Your task to perform on an android device: Open the web browser Image 0: 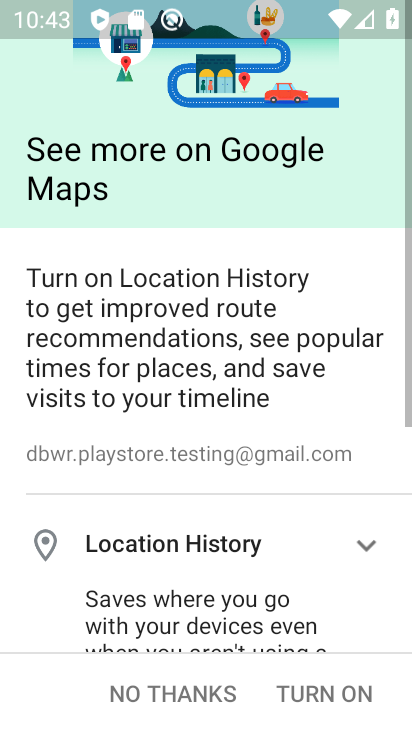
Step 0: press home button
Your task to perform on an android device: Open the web browser Image 1: 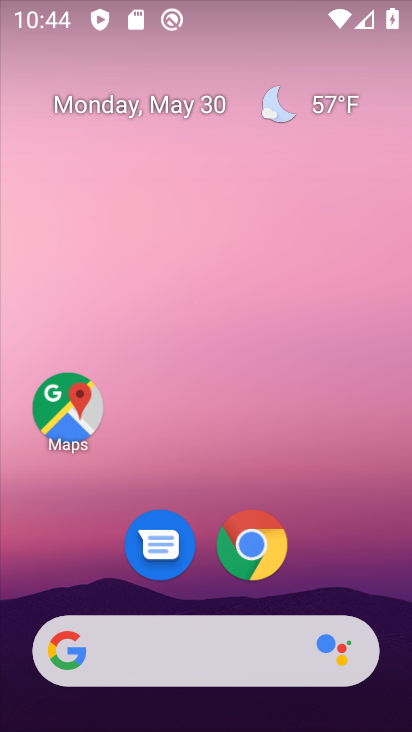
Step 1: drag from (216, 690) to (301, 98)
Your task to perform on an android device: Open the web browser Image 2: 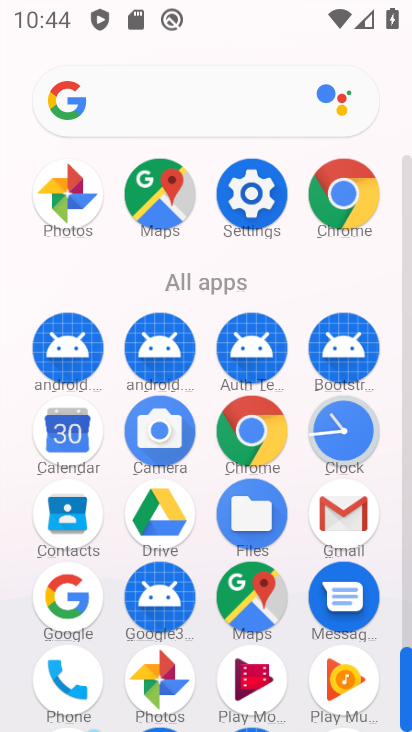
Step 2: click (359, 202)
Your task to perform on an android device: Open the web browser Image 3: 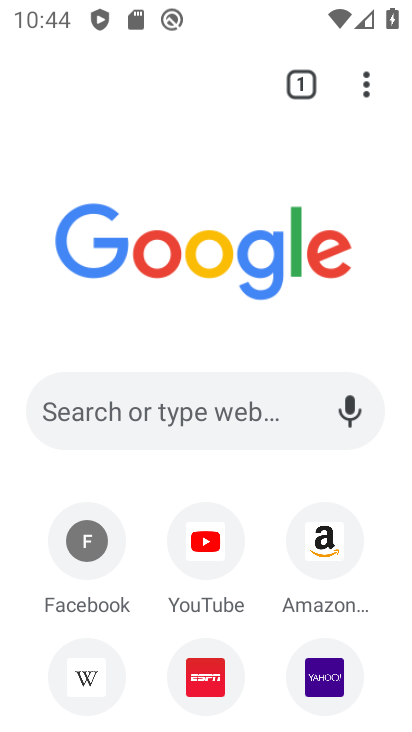
Step 3: click (169, 408)
Your task to perform on an android device: Open the web browser Image 4: 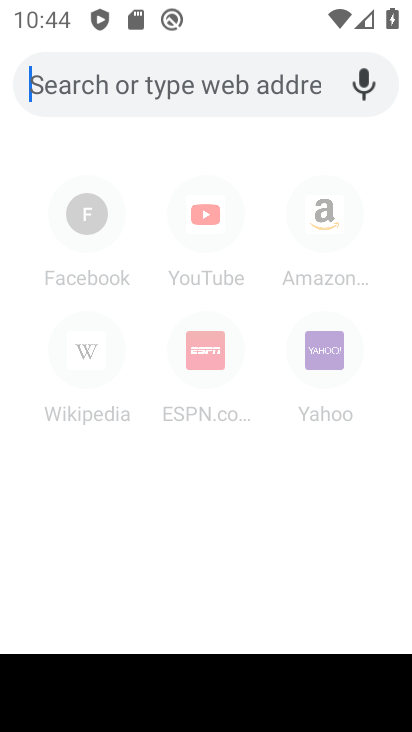
Step 4: task complete